Your task to perform on an android device: turn off improve location accuracy Image 0: 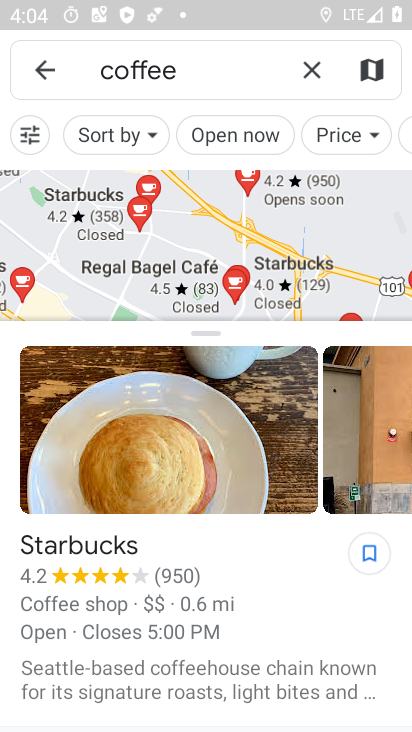
Step 0: press home button
Your task to perform on an android device: turn off improve location accuracy Image 1: 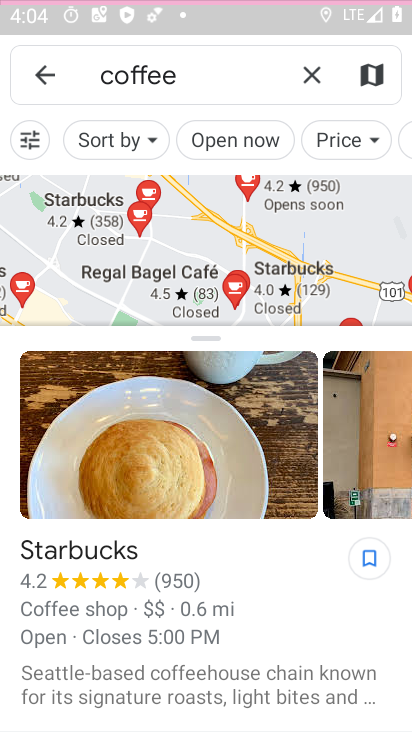
Step 1: press home button
Your task to perform on an android device: turn off improve location accuracy Image 2: 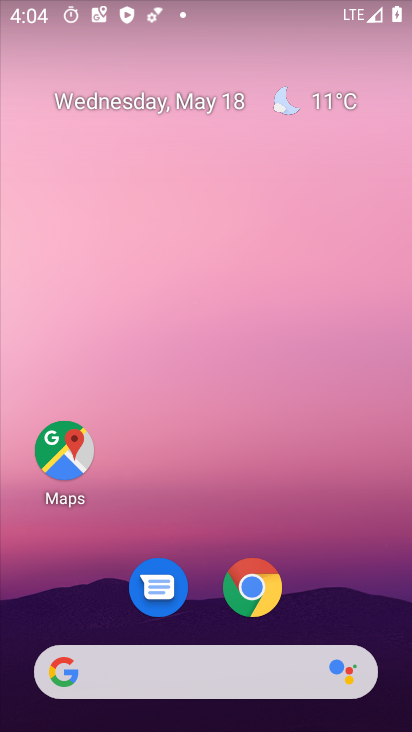
Step 2: drag from (179, 655) to (213, 187)
Your task to perform on an android device: turn off improve location accuracy Image 3: 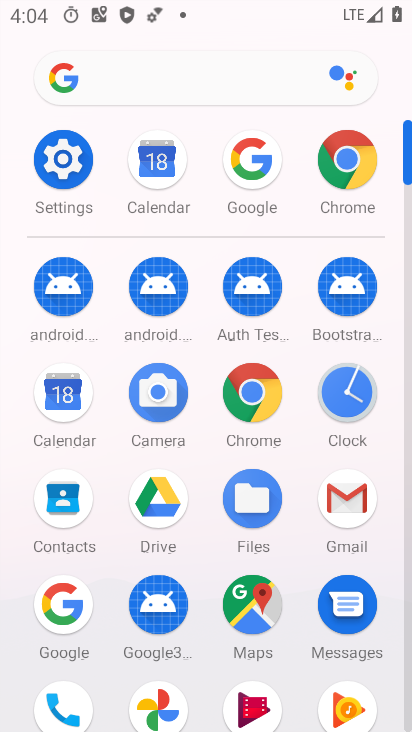
Step 3: click (48, 164)
Your task to perform on an android device: turn off improve location accuracy Image 4: 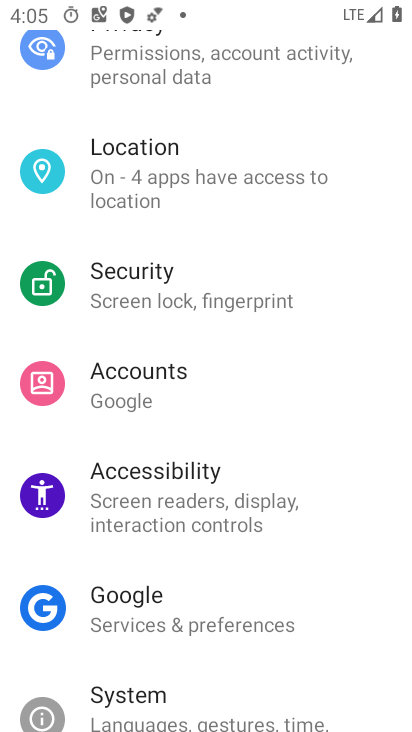
Step 4: drag from (120, 568) to (147, 358)
Your task to perform on an android device: turn off improve location accuracy Image 5: 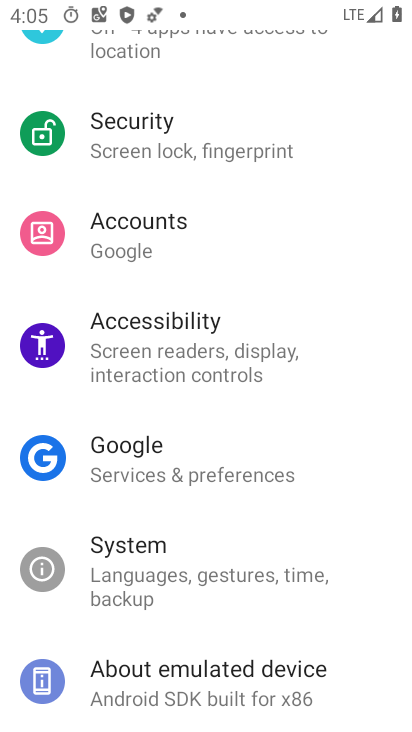
Step 5: drag from (180, 275) to (180, 678)
Your task to perform on an android device: turn off improve location accuracy Image 6: 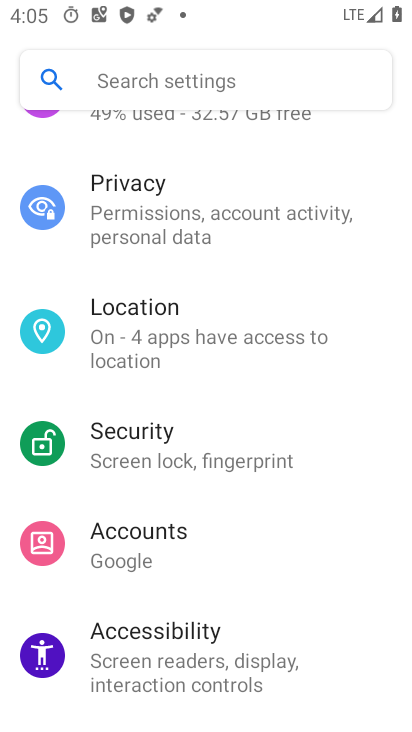
Step 6: click (216, 364)
Your task to perform on an android device: turn off improve location accuracy Image 7: 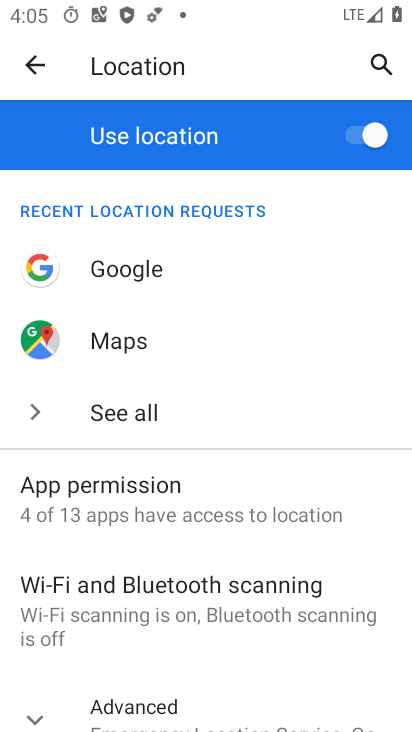
Step 7: drag from (211, 599) to (234, 235)
Your task to perform on an android device: turn off improve location accuracy Image 8: 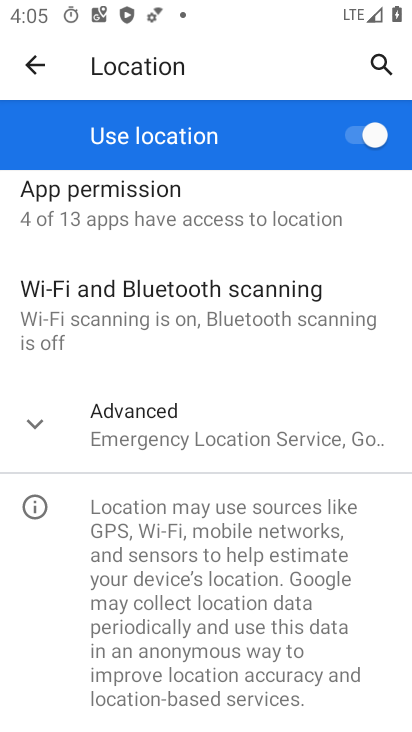
Step 8: click (170, 425)
Your task to perform on an android device: turn off improve location accuracy Image 9: 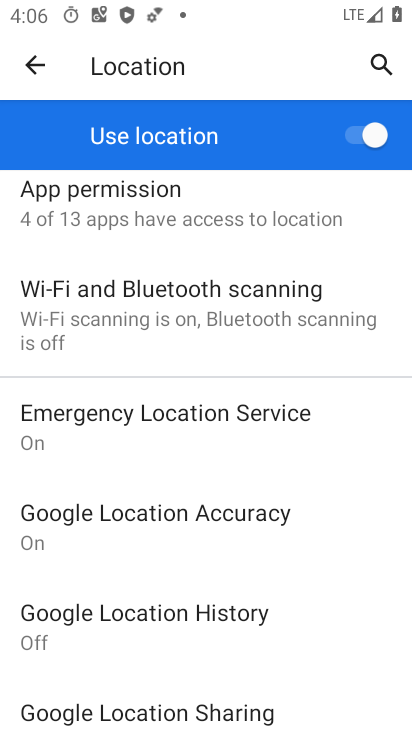
Step 9: click (220, 525)
Your task to perform on an android device: turn off improve location accuracy Image 10: 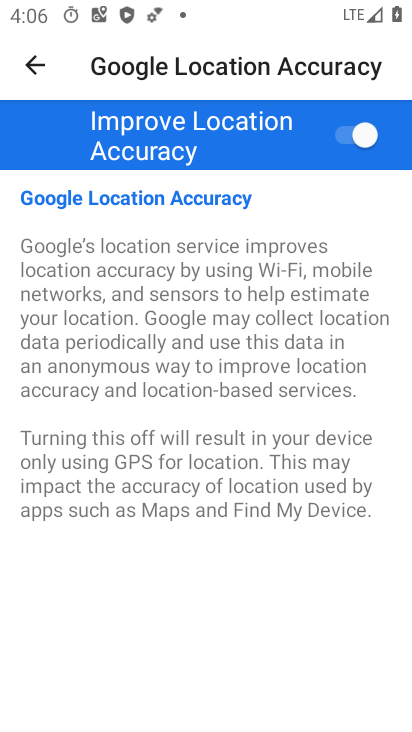
Step 10: click (340, 135)
Your task to perform on an android device: turn off improve location accuracy Image 11: 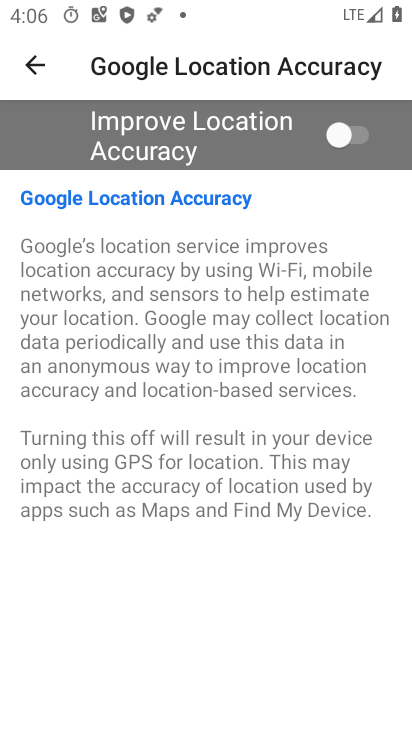
Step 11: task complete